Your task to perform on an android device: Open calendar and show me the fourth week of next month Image 0: 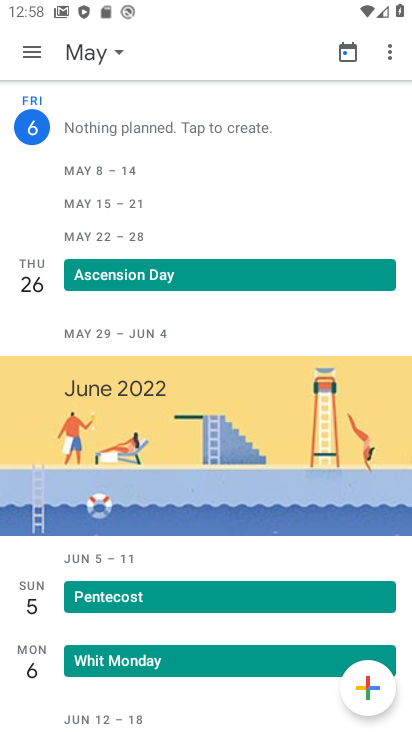
Step 0: click (34, 49)
Your task to perform on an android device: Open calendar and show me the fourth week of next month Image 1: 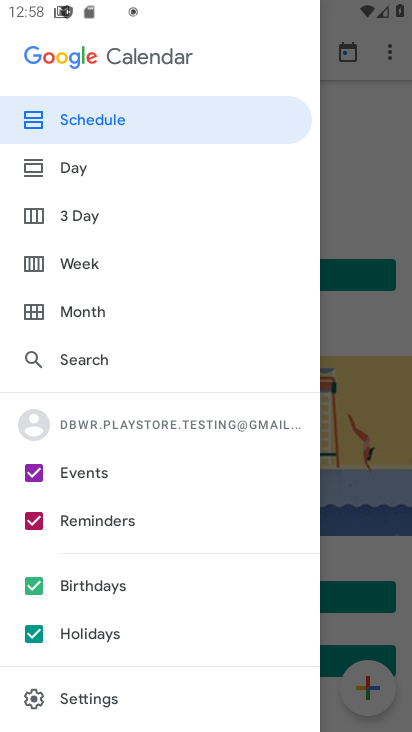
Step 1: click (71, 262)
Your task to perform on an android device: Open calendar and show me the fourth week of next month Image 2: 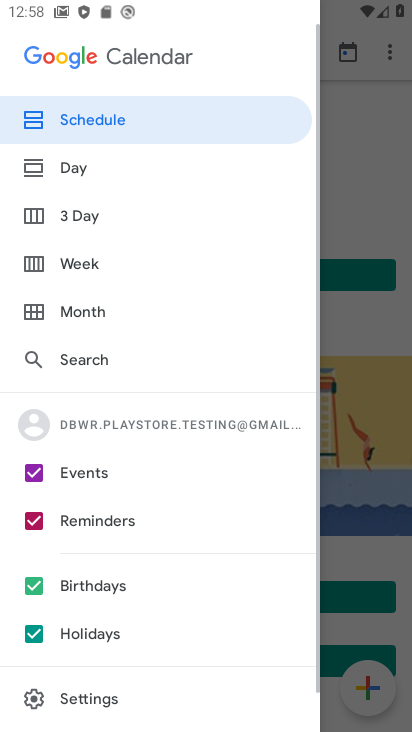
Step 2: click (34, 261)
Your task to perform on an android device: Open calendar and show me the fourth week of next month Image 3: 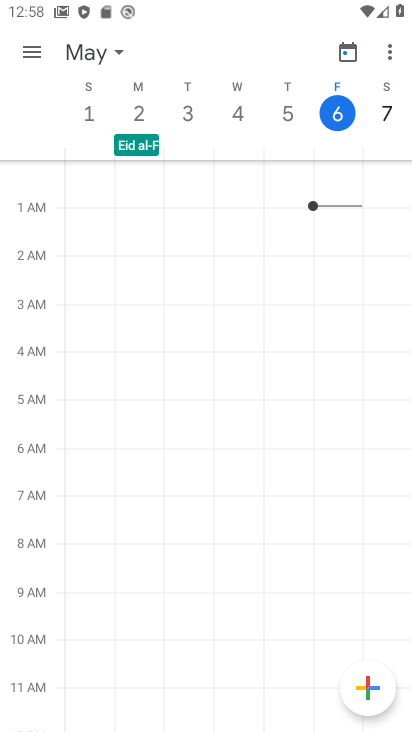
Step 3: drag from (382, 357) to (25, 362)
Your task to perform on an android device: Open calendar and show me the fourth week of next month Image 4: 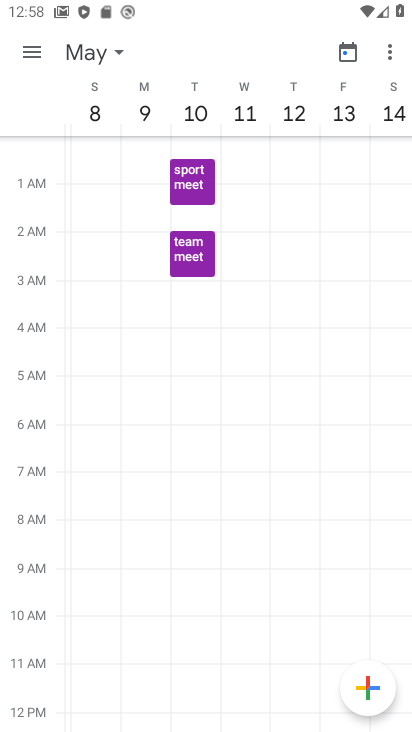
Step 4: drag from (332, 376) to (6, 377)
Your task to perform on an android device: Open calendar and show me the fourth week of next month Image 5: 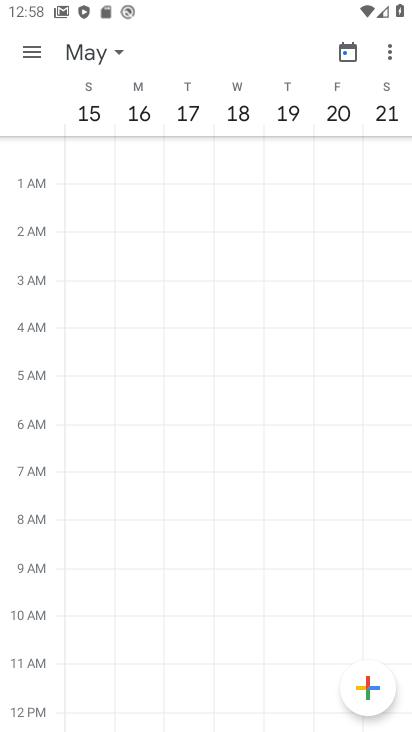
Step 5: drag from (259, 406) to (16, 399)
Your task to perform on an android device: Open calendar and show me the fourth week of next month Image 6: 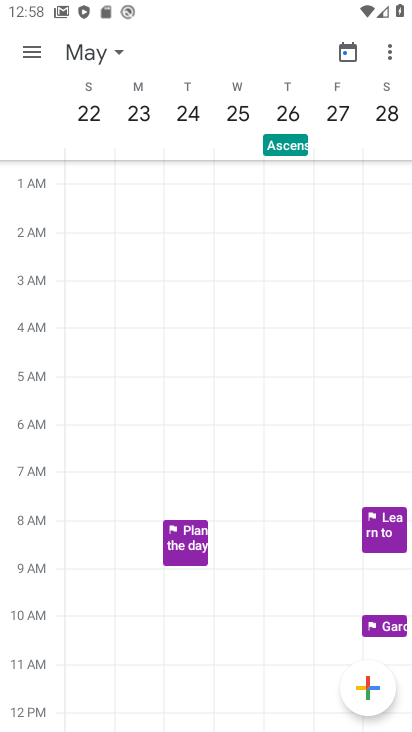
Step 6: drag from (393, 348) to (15, 394)
Your task to perform on an android device: Open calendar and show me the fourth week of next month Image 7: 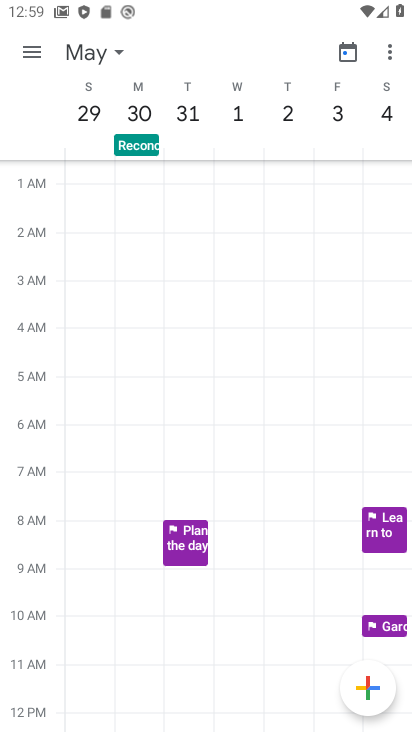
Step 7: drag from (383, 291) to (0, 320)
Your task to perform on an android device: Open calendar and show me the fourth week of next month Image 8: 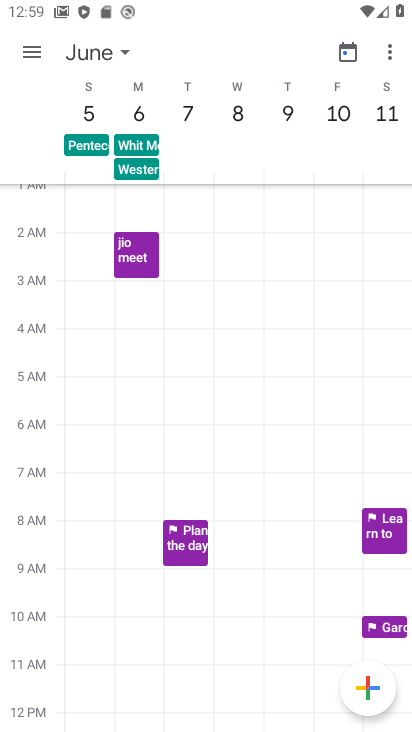
Step 8: click (383, 418)
Your task to perform on an android device: Open calendar and show me the fourth week of next month Image 9: 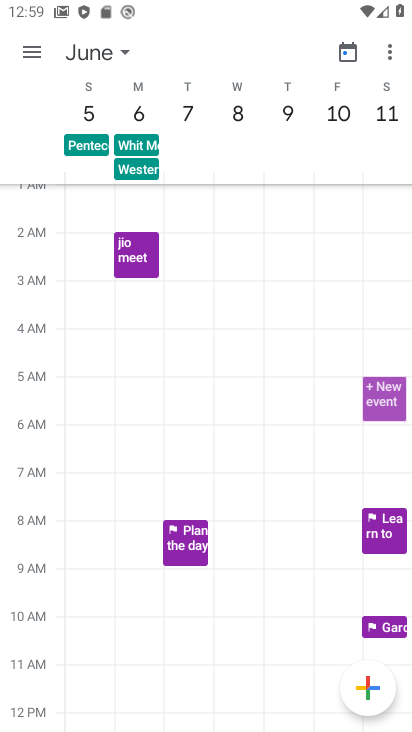
Step 9: task complete